Your task to perform on an android device: Go to accessibility settings Image 0: 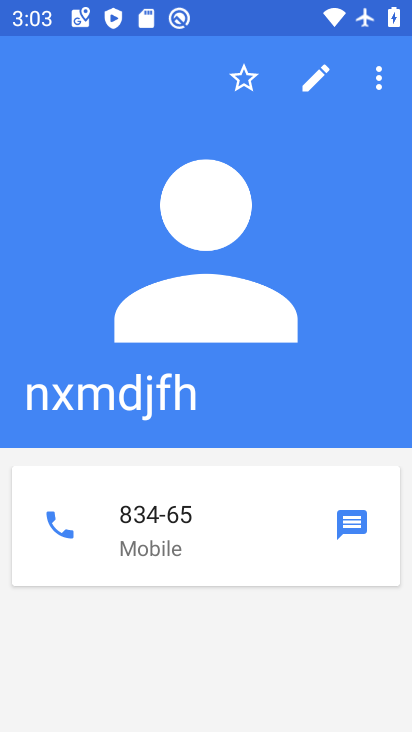
Step 0: press home button
Your task to perform on an android device: Go to accessibility settings Image 1: 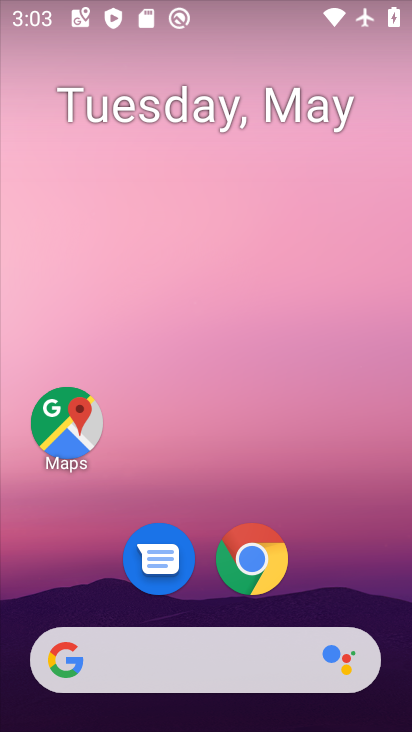
Step 1: drag from (145, 659) to (307, 169)
Your task to perform on an android device: Go to accessibility settings Image 2: 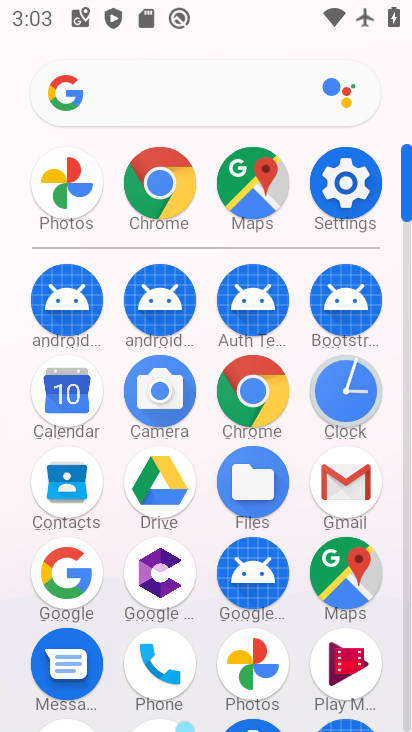
Step 2: click (348, 194)
Your task to perform on an android device: Go to accessibility settings Image 3: 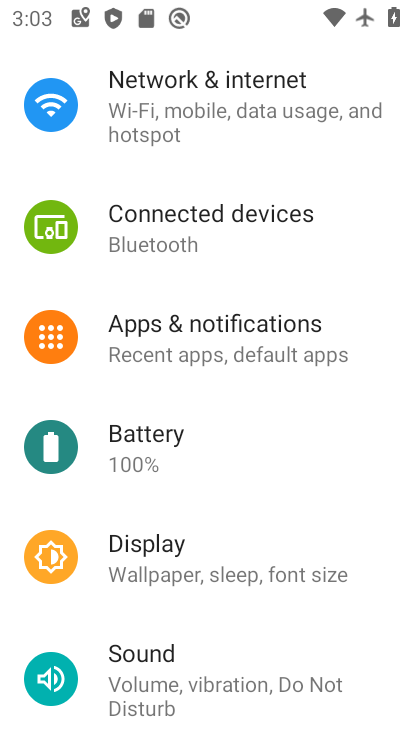
Step 3: drag from (193, 628) to (291, 110)
Your task to perform on an android device: Go to accessibility settings Image 4: 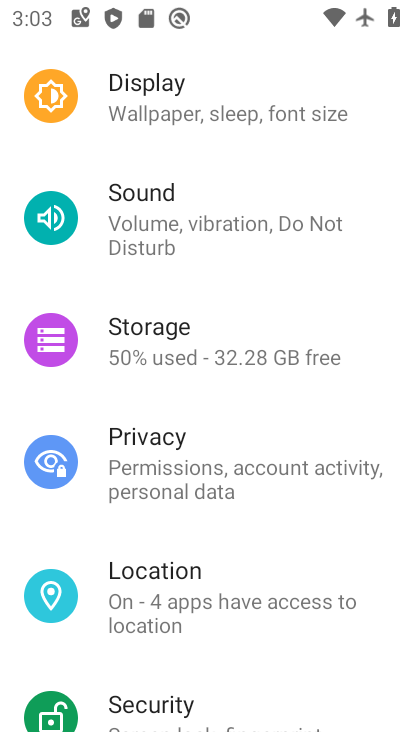
Step 4: drag from (172, 633) to (316, 175)
Your task to perform on an android device: Go to accessibility settings Image 5: 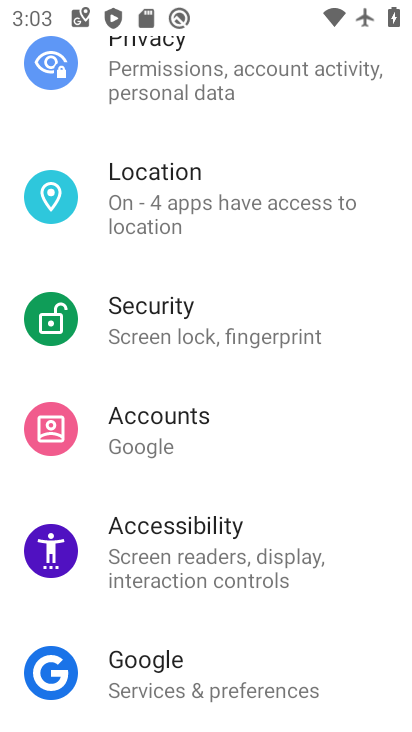
Step 5: click (167, 539)
Your task to perform on an android device: Go to accessibility settings Image 6: 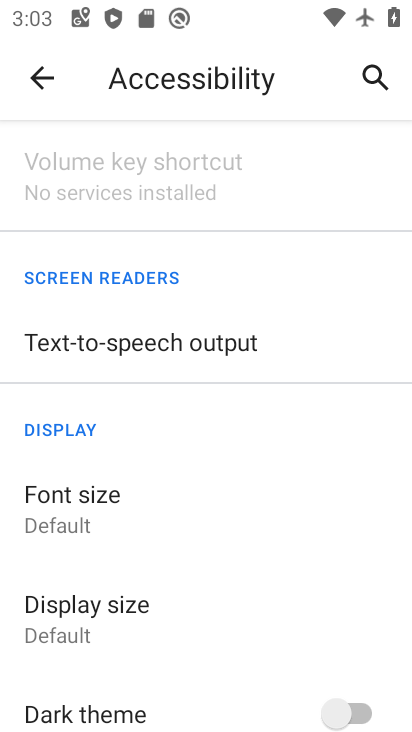
Step 6: task complete